Your task to perform on an android device: Search for sushi restaurants on Maps Image 0: 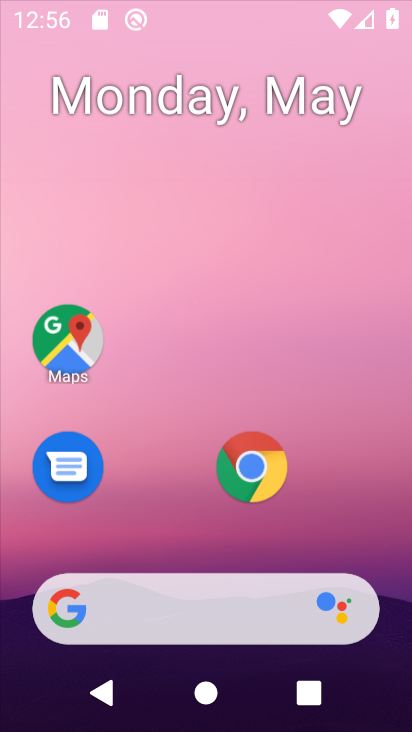
Step 0: click (232, 172)
Your task to perform on an android device: Search for sushi restaurants on Maps Image 1: 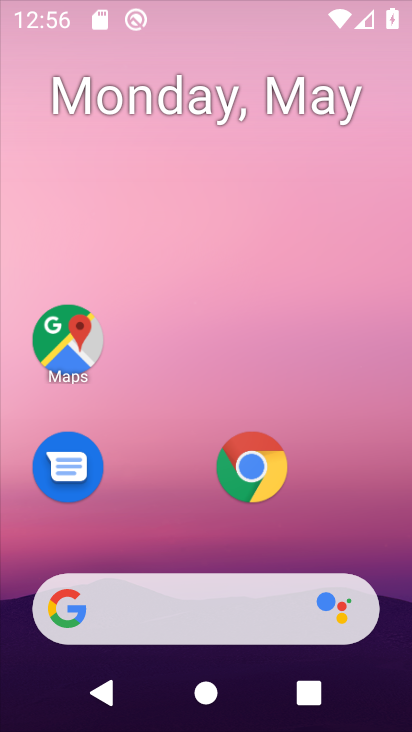
Step 1: drag from (204, 525) to (252, 88)
Your task to perform on an android device: Search for sushi restaurants on Maps Image 2: 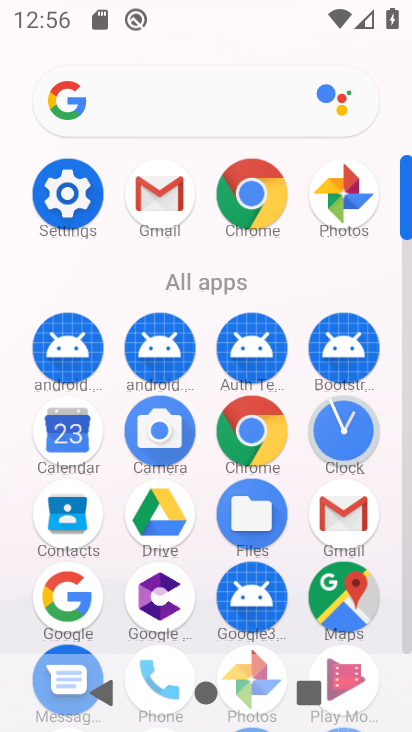
Step 2: click (330, 611)
Your task to perform on an android device: Search for sushi restaurants on Maps Image 3: 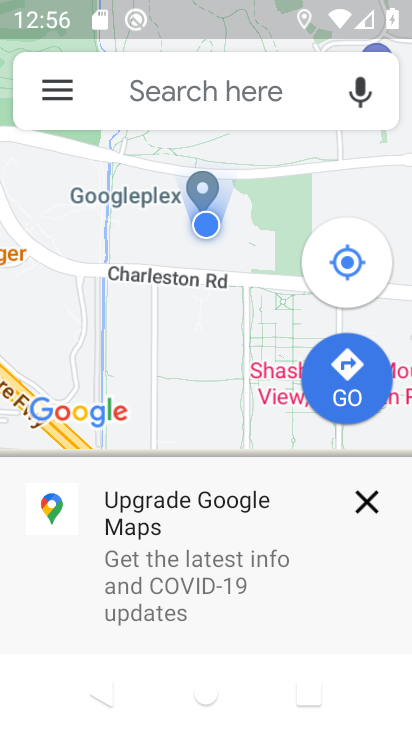
Step 3: drag from (242, 607) to (278, 271)
Your task to perform on an android device: Search for sushi restaurants on Maps Image 4: 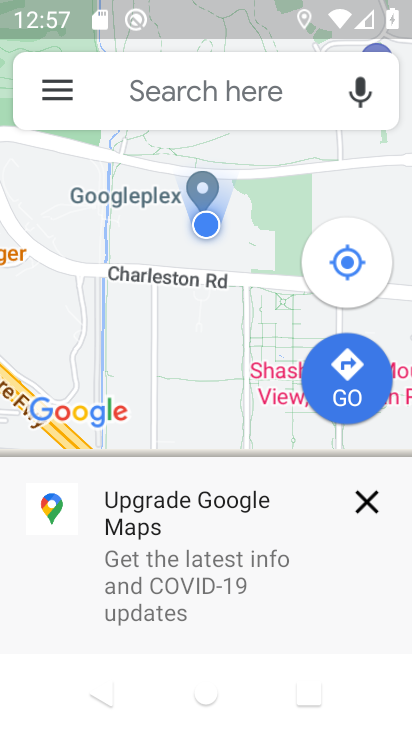
Step 4: click (185, 79)
Your task to perform on an android device: Search for sushi restaurants on Maps Image 5: 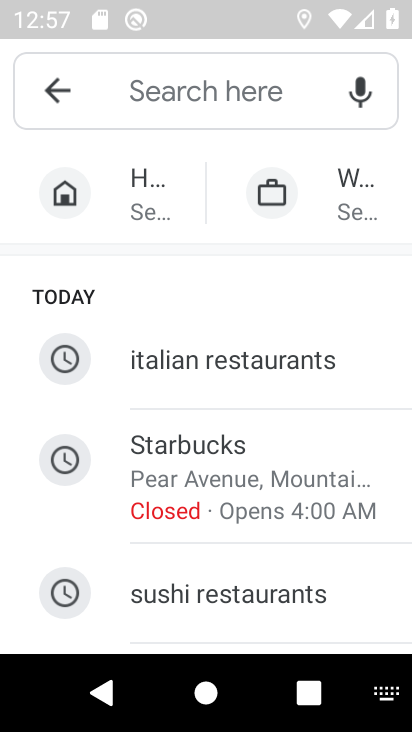
Step 5: drag from (211, 551) to (255, 144)
Your task to perform on an android device: Search for sushi restaurants on Maps Image 6: 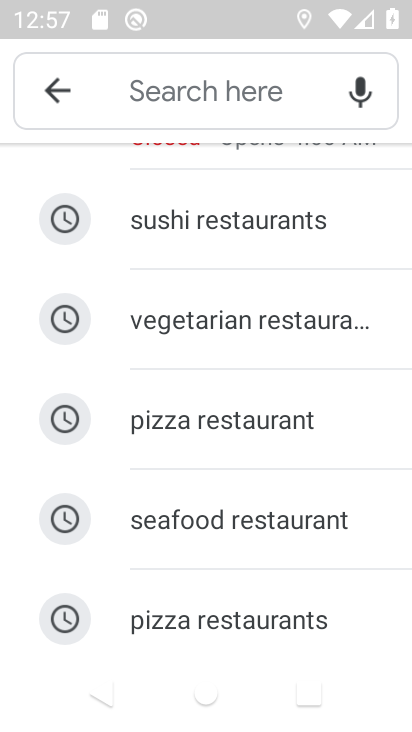
Step 6: drag from (210, 559) to (228, 251)
Your task to perform on an android device: Search for sushi restaurants on Maps Image 7: 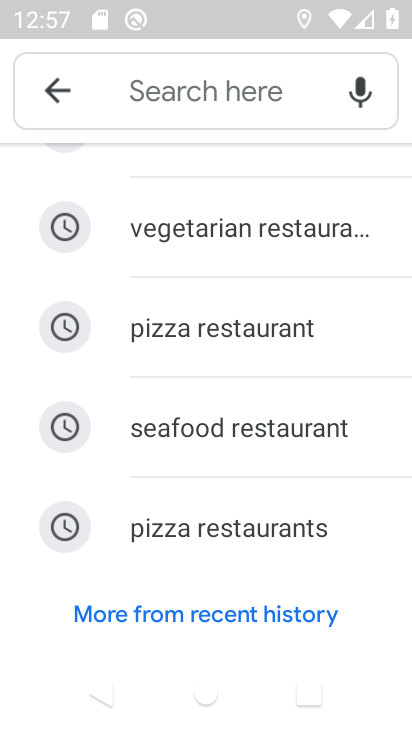
Step 7: drag from (229, 541) to (231, 258)
Your task to perform on an android device: Search for sushi restaurants on Maps Image 8: 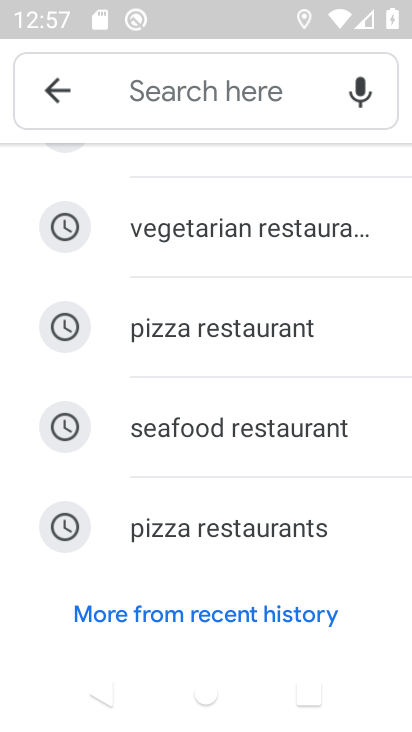
Step 8: drag from (275, 492) to (353, 145)
Your task to perform on an android device: Search for sushi restaurants on Maps Image 9: 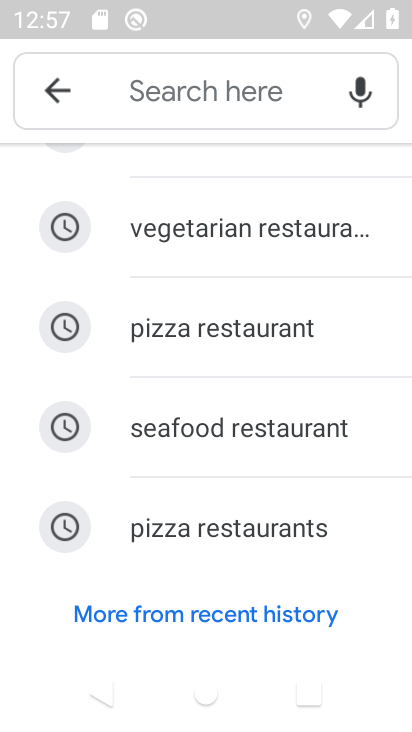
Step 9: drag from (365, 153) to (253, 686)
Your task to perform on an android device: Search for sushi restaurants on Maps Image 10: 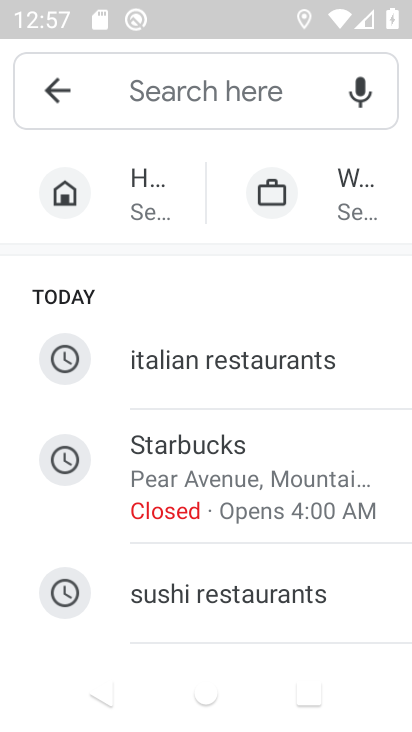
Step 10: drag from (212, 536) to (264, 331)
Your task to perform on an android device: Search for sushi restaurants on Maps Image 11: 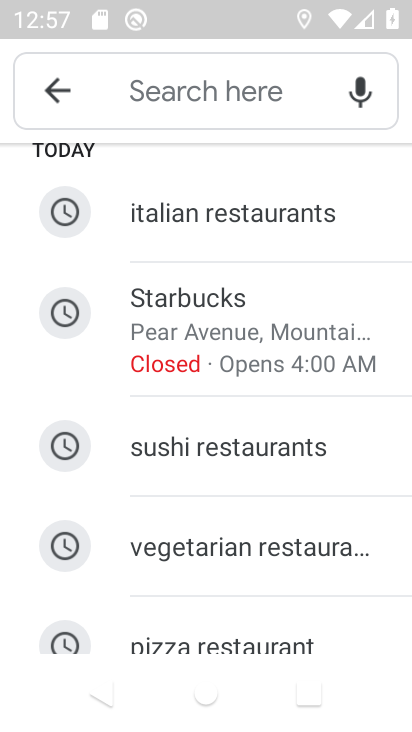
Step 11: click (216, 446)
Your task to perform on an android device: Search for sushi restaurants on Maps Image 12: 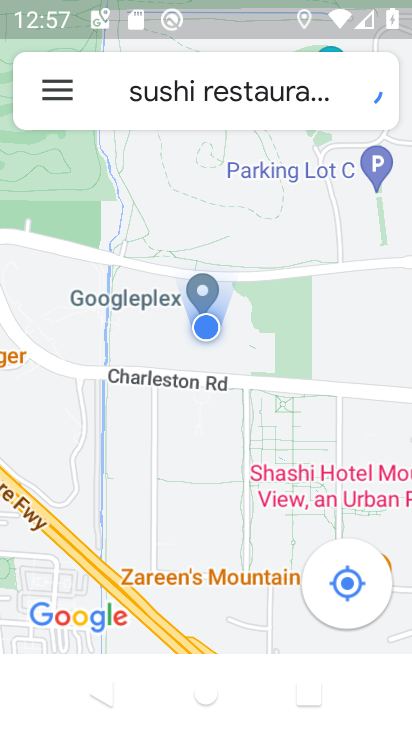
Step 12: task complete